Your task to perform on an android device: see tabs open on other devices in the chrome app Image 0: 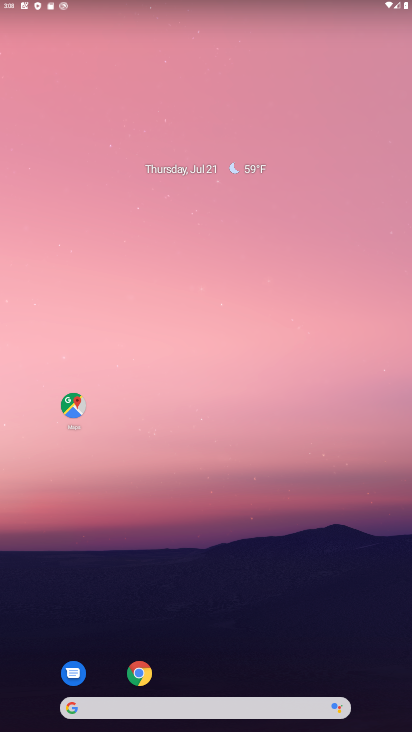
Step 0: click (137, 672)
Your task to perform on an android device: see tabs open on other devices in the chrome app Image 1: 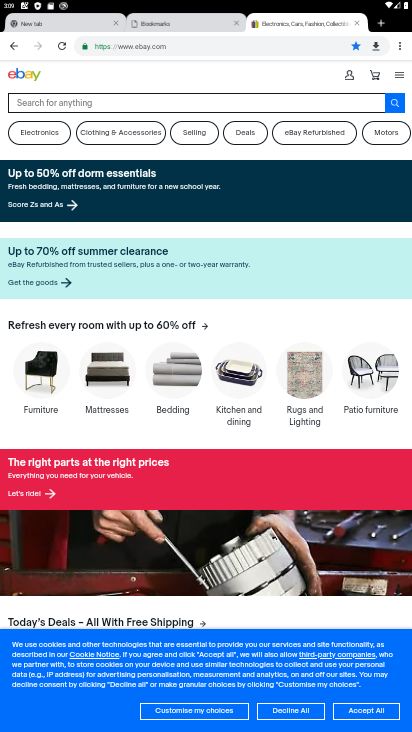
Step 1: click (399, 51)
Your task to perform on an android device: see tabs open on other devices in the chrome app Image 2: 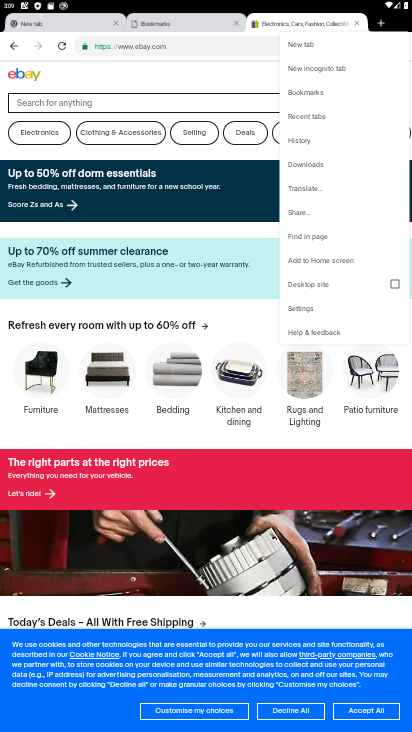
Step 2: click (300, 116)
Your task to perform on an android device: see tabs open on other devices in the chrome app Image 3: 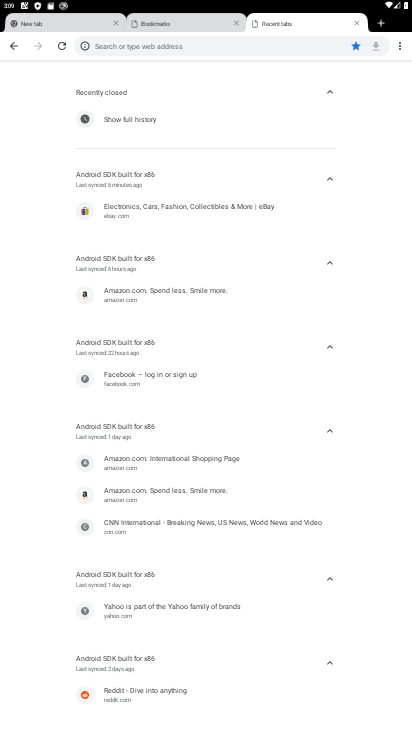
Step 3: task complete